Your task to perform on an android device: turn pop-ups off in chrome Image 0: 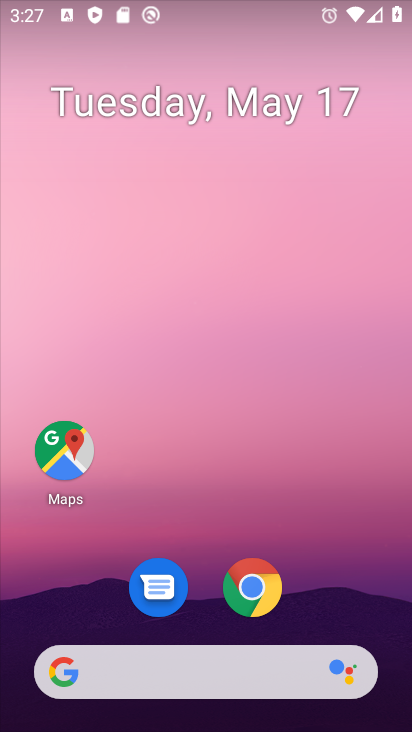
Step 0: drag from (182, 633) to (226, 100)
Your task to perform on an android device: turn pop-ups off in chrome Image 1: 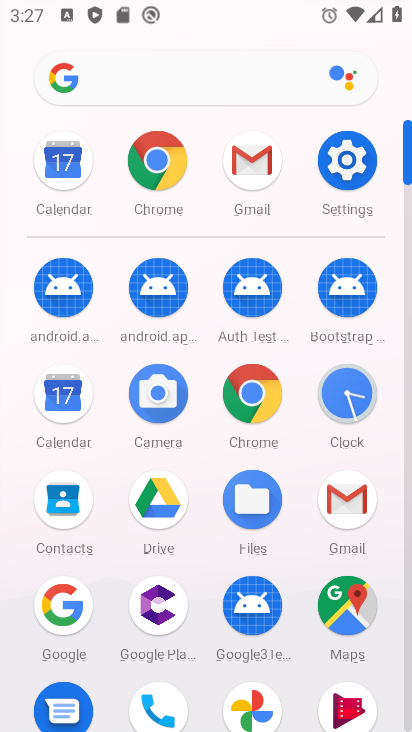
Step 1: click (258, 383)
Your task to perform on an android device: turn pop-ups off in chrome Image 2: 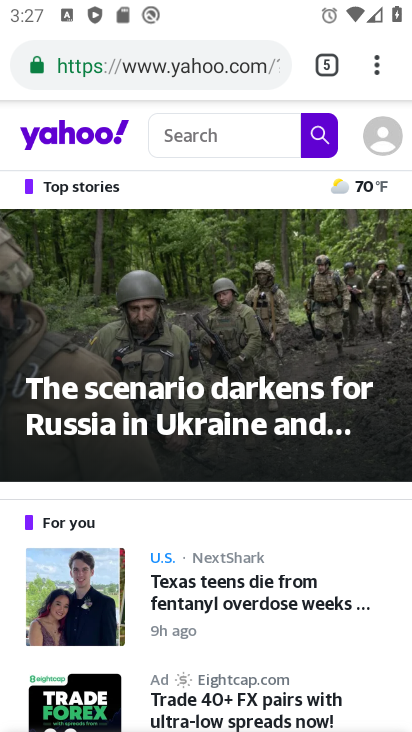
Step 2: click (379, 65)
Your task to perform on an android device: turn pop-ups off in chrome Image 3: 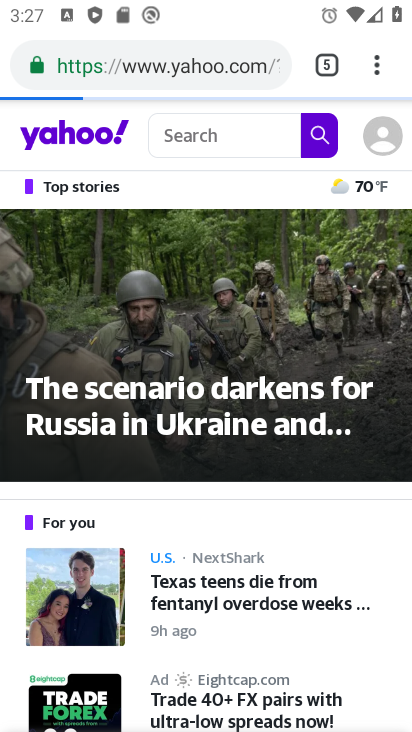
Step 3: click (379, 66)
Your task to perform on an android device: turn pop-ups off in chrome Image 4: 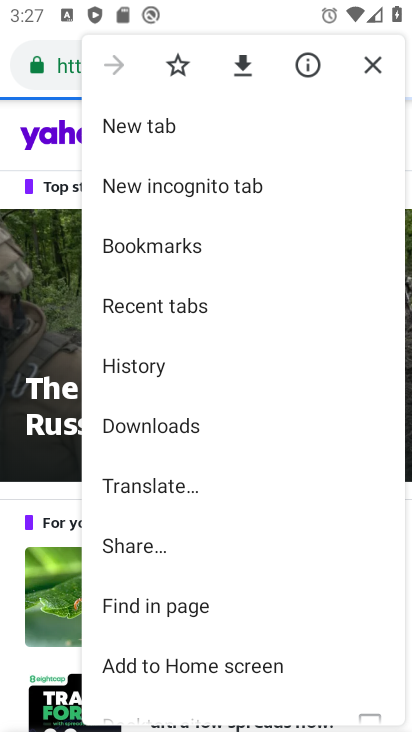
Step 4: drag from (228, 556) to (254, 128)
Your task to perform on an android device: turn pop-ups off in chrome Image 5: 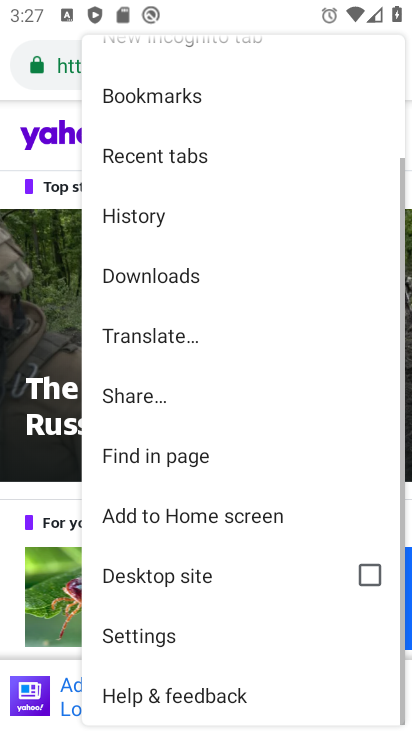
Step 5: click (181, 625)
Your task to perform on an android device: turn pop-ups off in chrome Image 6: 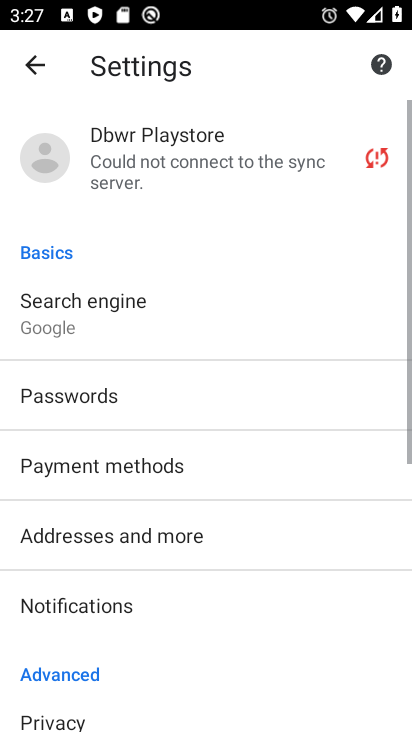
Step 6: drag from (192, 584) to (292, 189)
Your task to perform on an android device: turn pop-ups off in chrome Image 7: 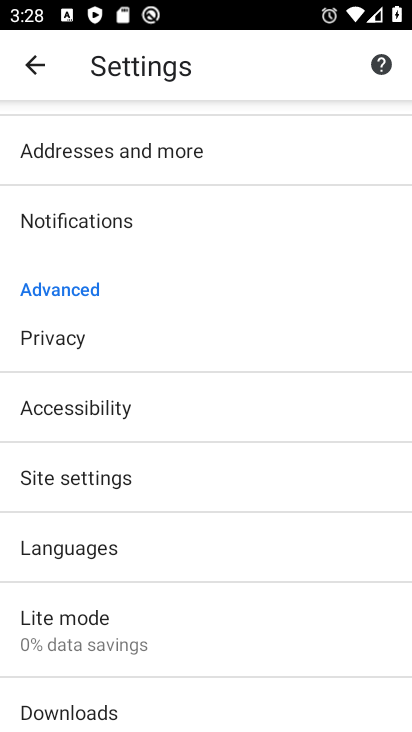
Step 7: drag from (199, 615) to (332, 194)
Your task to perform on an android device: turn pop-ups off in chrome Image 8: 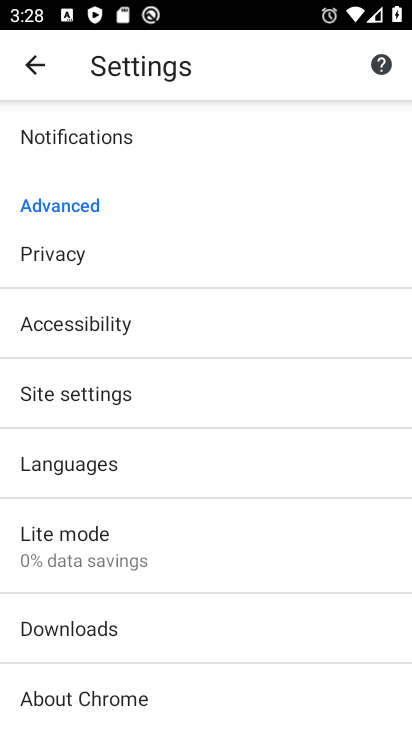
Step 8: click (139, 392)
Your task to perform on an android device: turn pop-ups off in chrome Image 9: 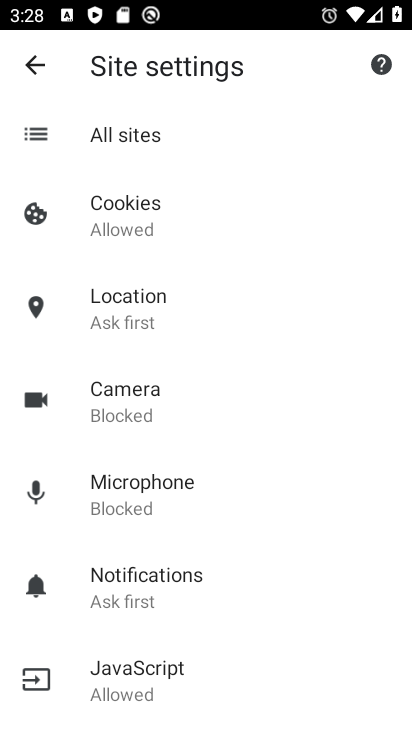
Step 9: drag from (257, 602) to (295, 279)
Your task to perform on an android device: turn pop-ups off in chrome Image 10: 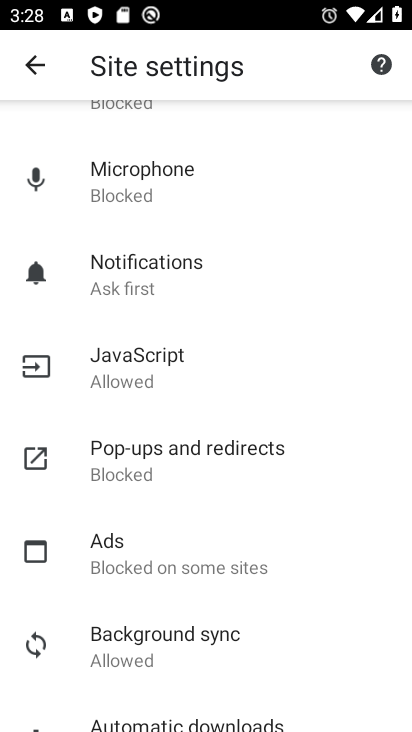
Step 10: click (218, 456)
Your task to perform on an android device: turn pop-ups off in chrome Image 11: 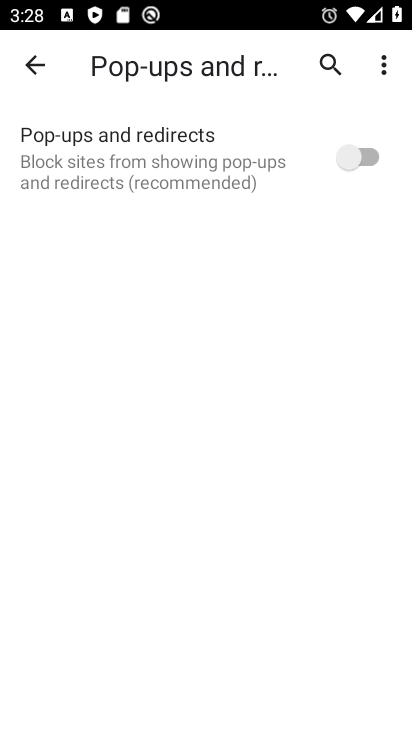
Step 11: task complete